Your task to perform on an android device: Turn on the flashlight Image 0: 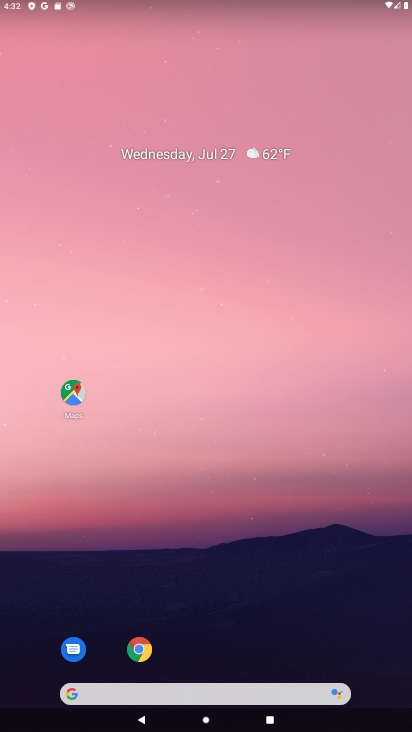
Step 0: task complete